Your task to perform on an android device: toggle sleep mode Image 0: 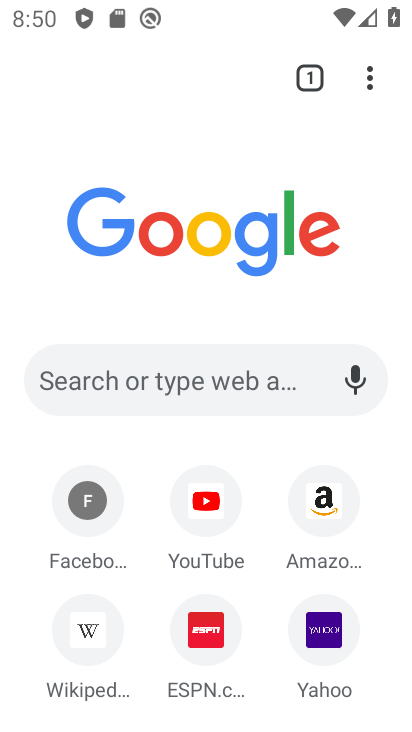
Step 0: press home button
Your task to perform on an android device: toggle sleep mode Image 1: 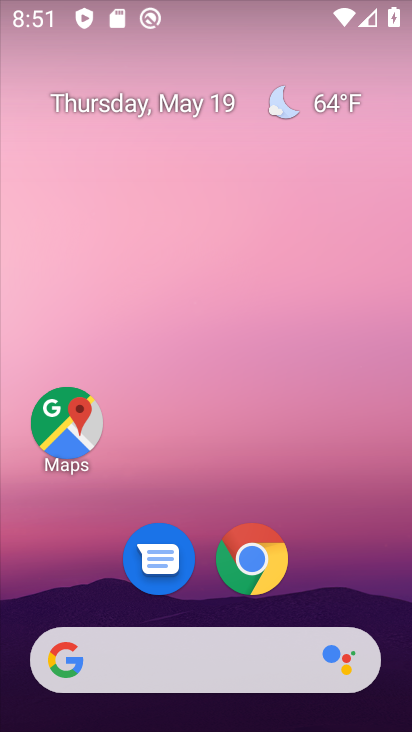
Step 1: drag from (224, 727) to (233, 79)
Your task to perform on an android device: toggle sleep mode Image 2: 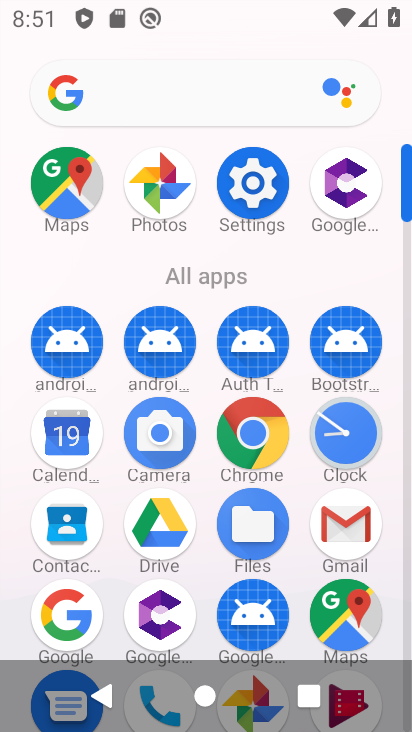
Step 2: click (243, 177)
Your task to perform on an android device: toggle sleep mode Image 3: 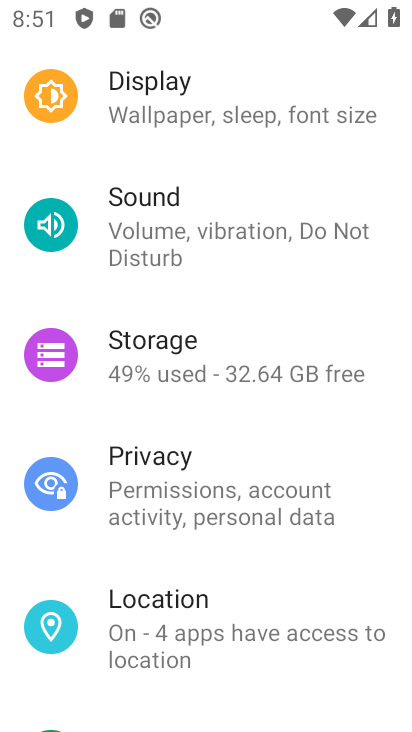
Step 3: task complete